Your task to perform on an android device: Do I have any events tomorrow? Image 0: 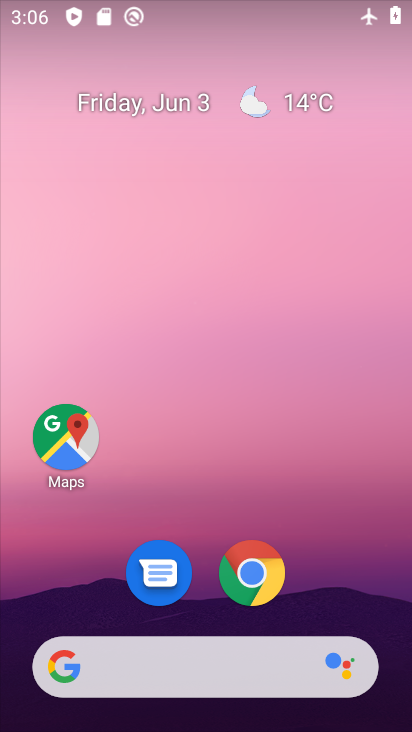
Step 0: drag from (319, 580) to (341, 397)
Your task to perform on an android device: Do I have any events tomorrow? Image 1: 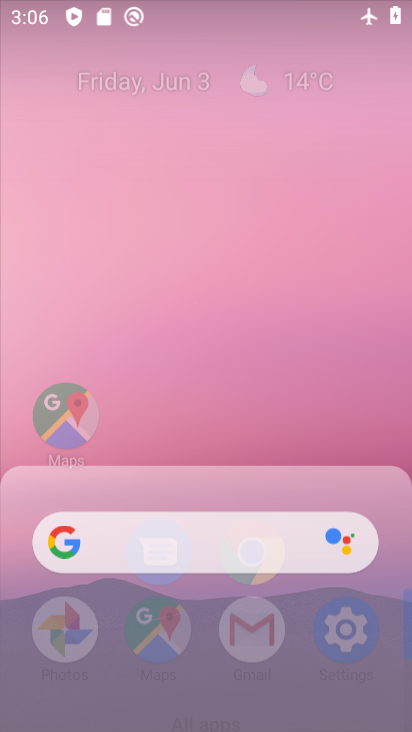
Step 1: drag from (341, 296) to (341, 159)
Your task to perform on an android device: Do I have any events tomorrow? Image 2: 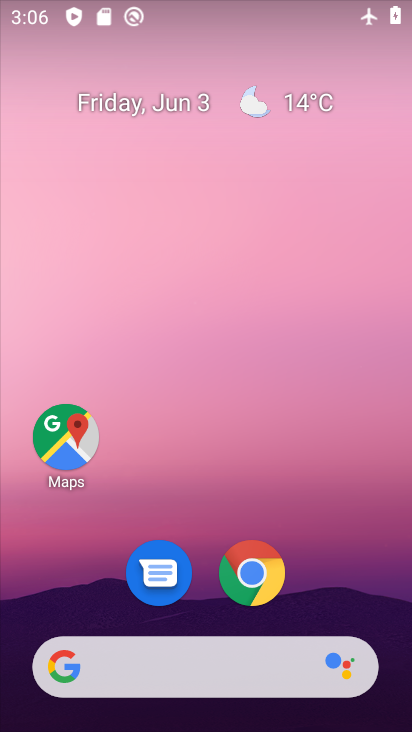
Step 2: drag from (373, 482) to (362, 127)
Your task to perform on an android device: Do I have any events tomorrow? Image 3: 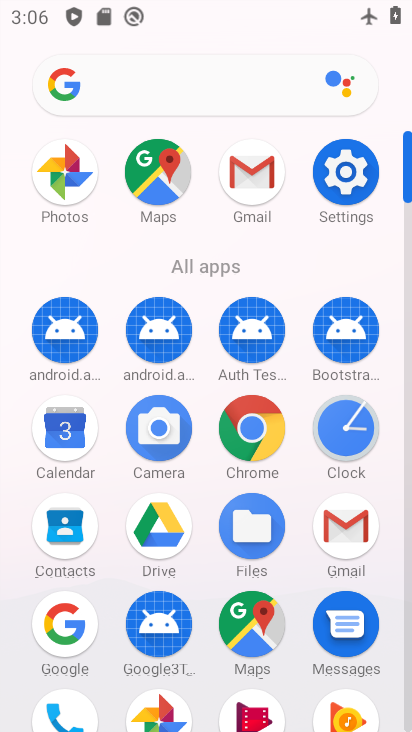
Step 3: drag from (215, 519) to (240, 365)
Your task to perform on an android device: Do I have any events tomorrow? Image 4: 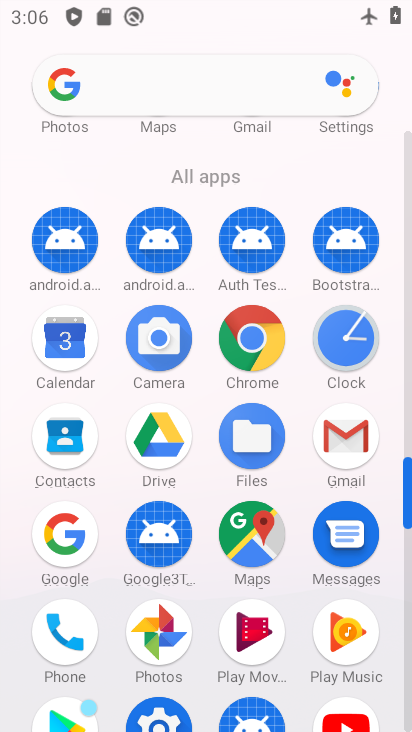
Step 4: click (61, 349)
Your task to perform on an android device: Do I have any events tomorrow? Image 5: 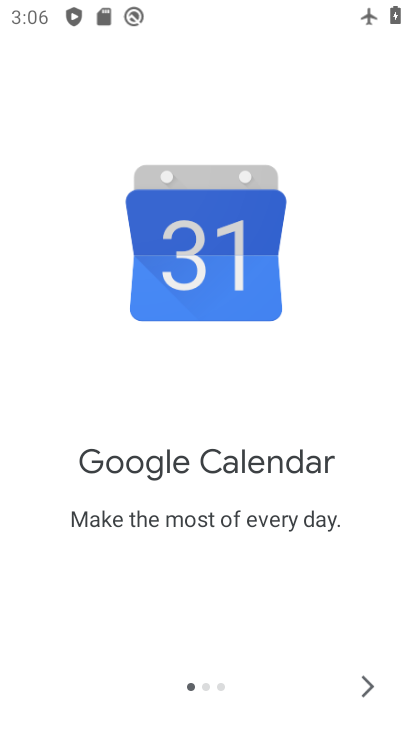
Step 5: click (375, 674)
Your task to perform on an android device: Do I have any events tomorrow? Image 6: 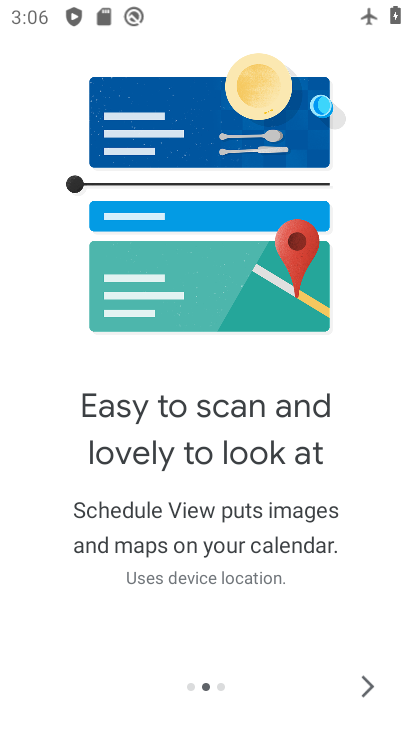
Step 6: click (368, 684)
Your task to perform on an android device: Do I have any events tomorrow? Image 7: 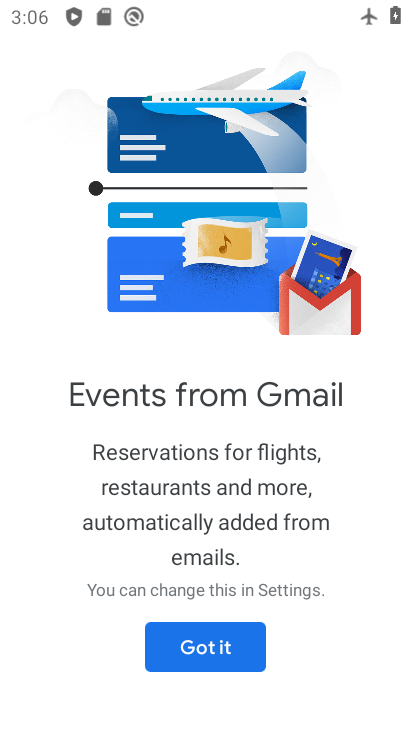
Step 7: click (232, 656)
Your task to perform on an android device: Do I have any events tomorrow? Image 8: 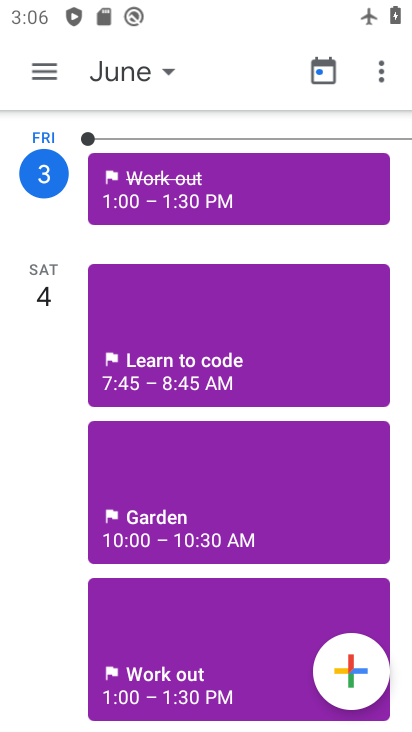
Step 8: task complete